Your task to perform on an android device: Open the calendar app, open the side menu, and click the "Day" option Image 0: 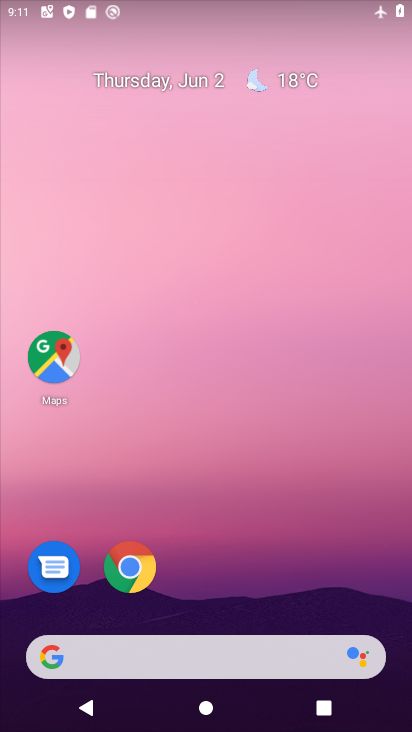
Step 0: click (202, 224)
Your task to perform on an android device: Open the calendar app, open the side menu, and click the "Day" option Image 1: 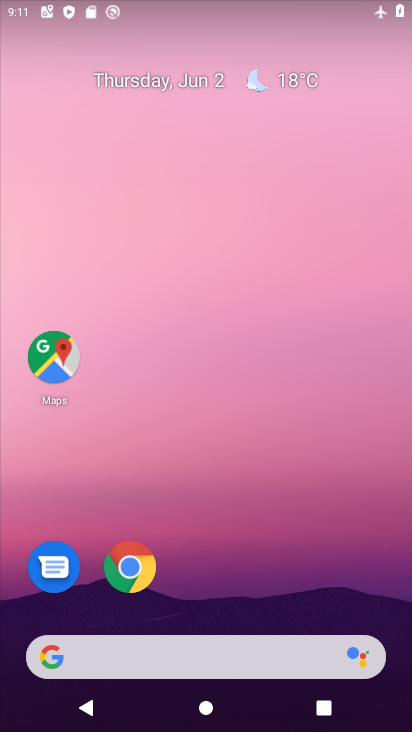
Step 1: click (201, 71)
Your task to perform on an android device: Open the calendar app, open the side menu, and click the "Day" option Image 2: 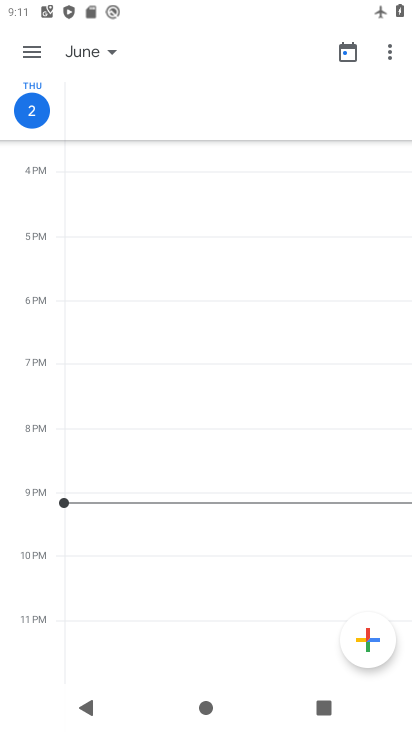
Step 2: press home button
Your task to perform on an android device: Open the calendar app, open the side menu, and click the "Day" option Image 3: 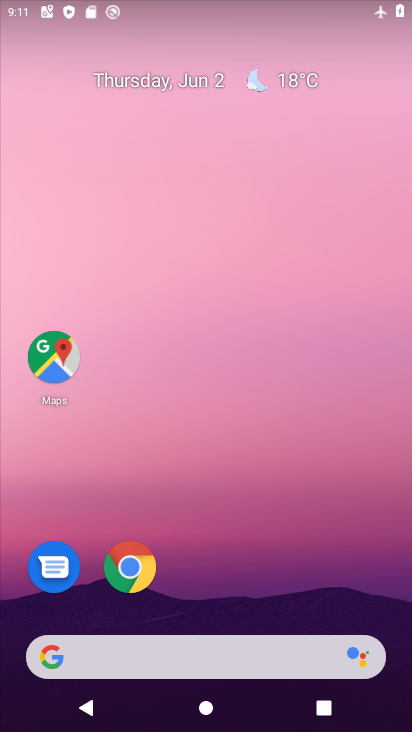
Step 3: drag from (221, 606) to (255, 16)
Your task to perform on an android device: Open the calendar app, open the side menu, and click the "Day" option Image 4: 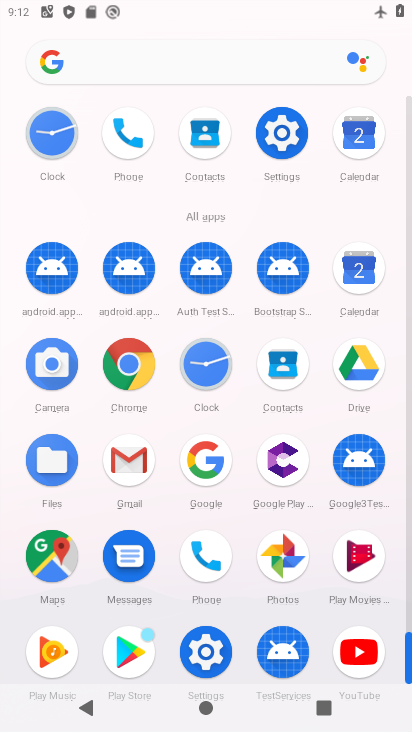
Step 4: click (357, 265)
Your task to perform on an android device: Open the calendar app, open the side menu, and click the "Day" option Image 5: 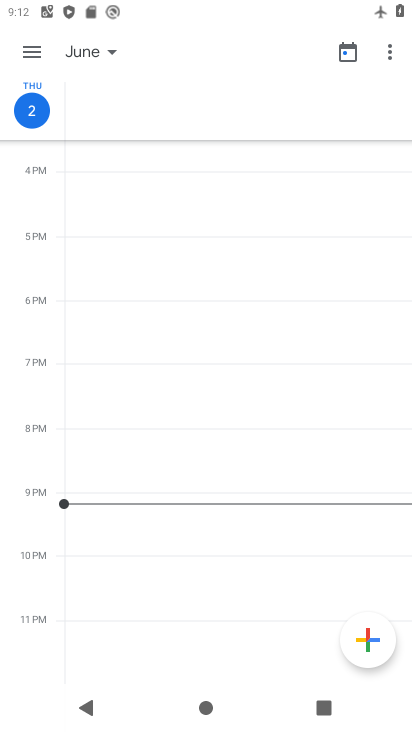
Step 5: click (34, 43)
Your task to perform on an android device: Open the calendar app, open the side menu, and click the "Day" option Image 6: 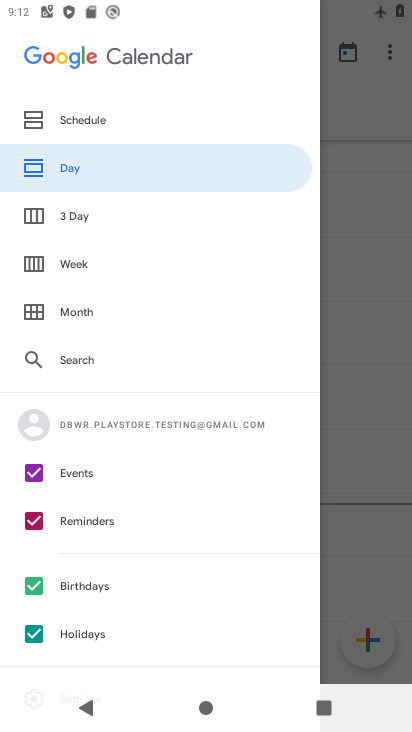
Step 6: click (62, 171)
Your task to perform on an android device: Open the calendar app, open the side menu, and click the "Day" option Image 7: 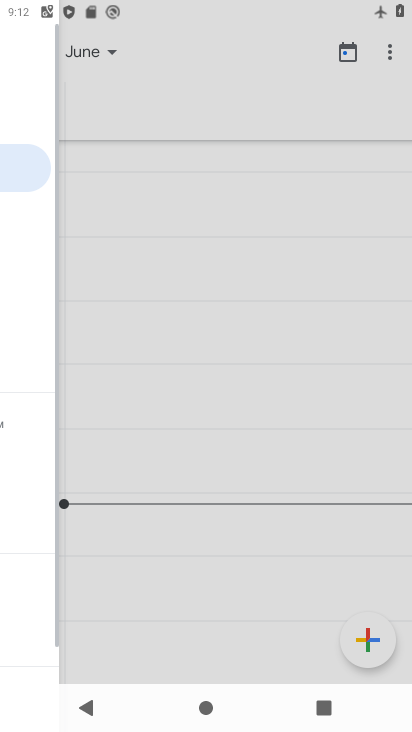
Step 7: task complete